Your task to perform on an android device: Go to display settings Image 0: 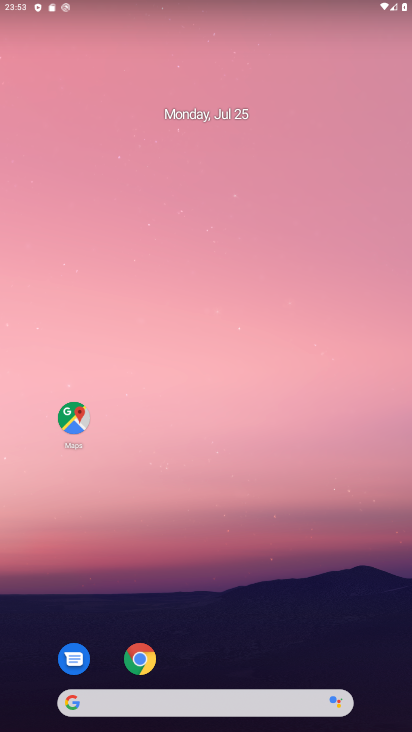
Step 0: drag from (252, 616) to (272, 101)
Your task to perform on an android device: Go to display settings Image 1: 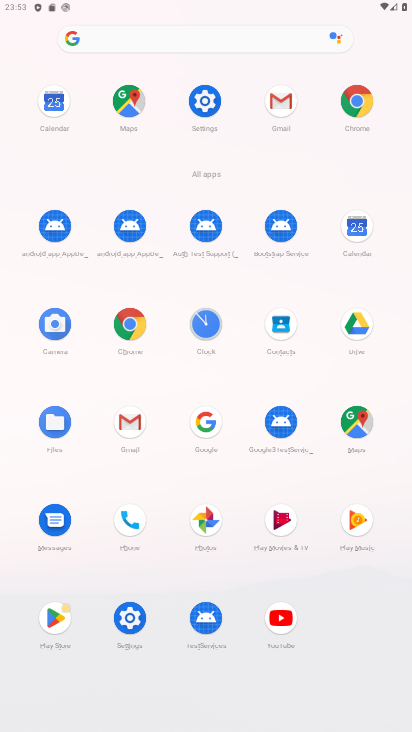
Step 1: click (221, 103)
Your task to perform on an android device: Go to display settings Image 2: 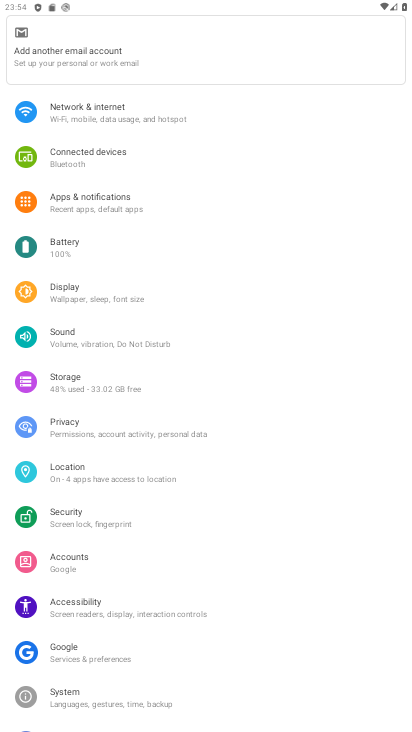
Step 2: click (70, 285)
Your task to perform on an android device: Go to display settings Image 3: 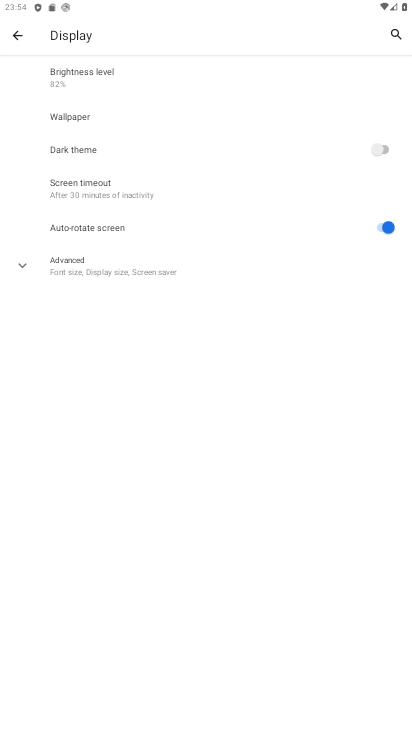
Step 3: task complete